Your task to perform on an android device: move an email to a new category in the gmail app Image 0: 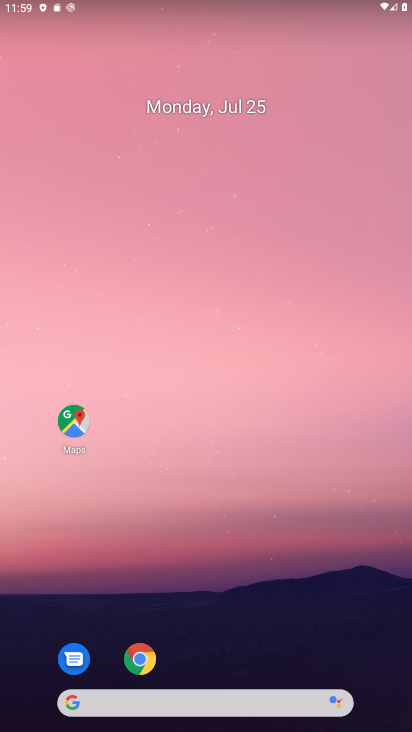
Step 0: press home button
Your task to perform on an android device: move an email to a new category in the gmail app Image 1: 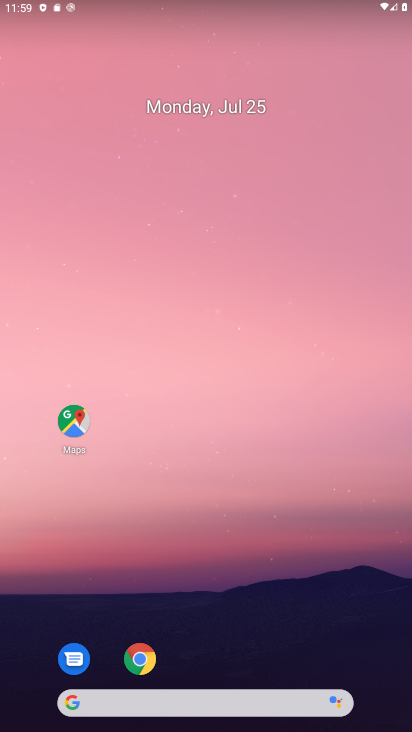
Step 1: drag from (256, 654) to (281, 0)
Your task to perform on an android device: move an email to a new category in the gmail app Image 2: 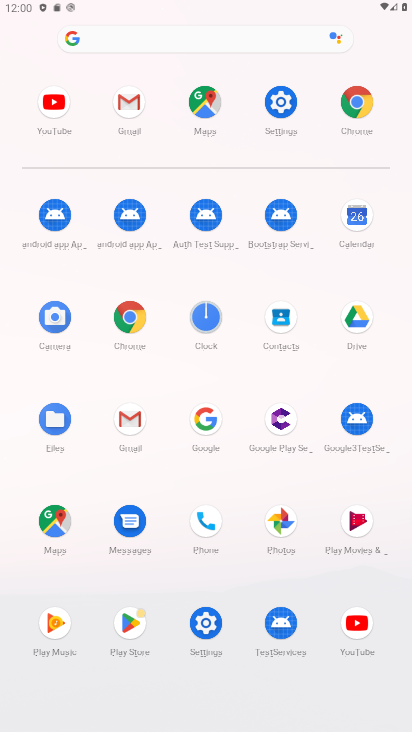
Step 2: click (120, 108)
Your task to perform on an android device: move an email to a new category in the gmail app Image 3: 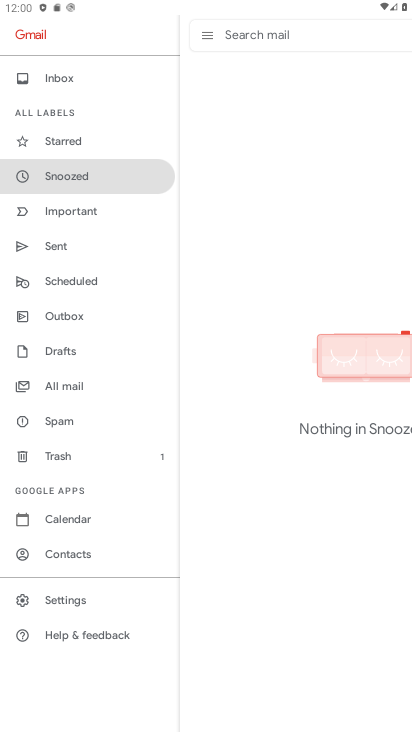
Step 3: task complete